Your task to perform on an android device: change the clock display to digital Image 0: 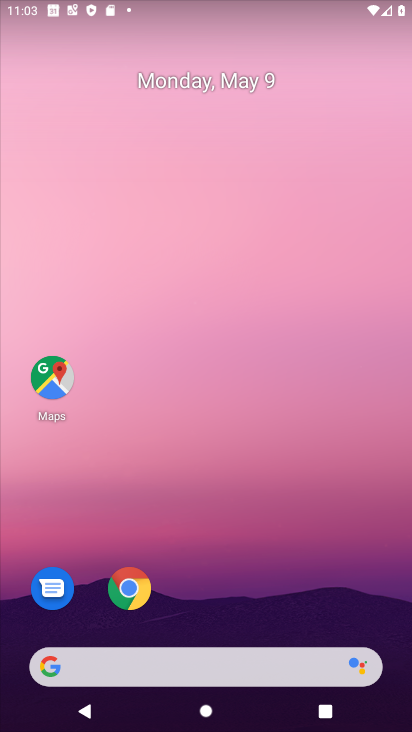
Step 0: drag from (163, 643) to (159, 0)
Your task to perform on an android device: change the clock display to digital Image 1: 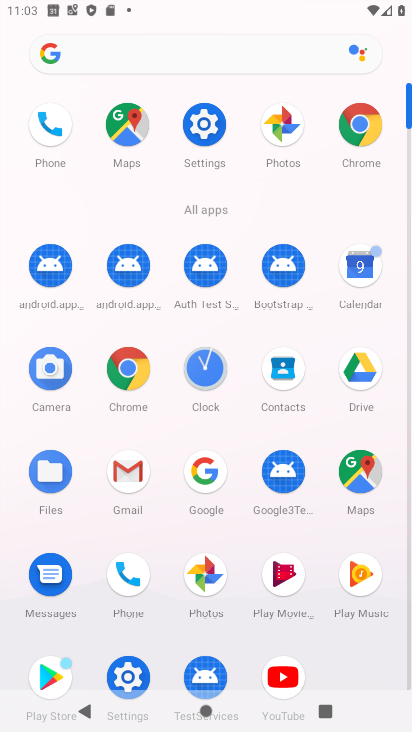
Step 1: click (114, 483)
Your task to perform on an android device: change the clock display to digital Image 2: 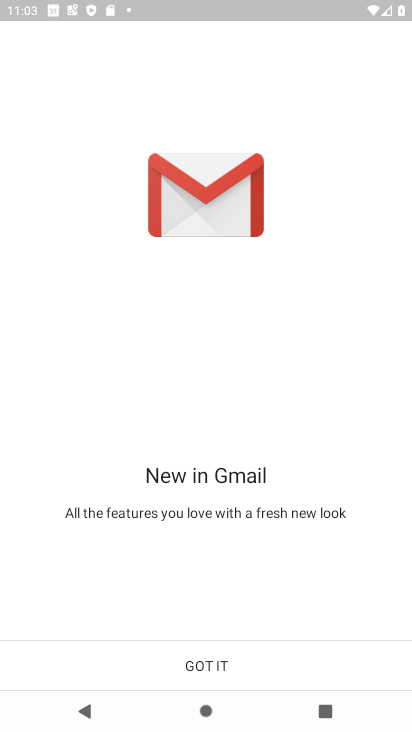
Step 2: press home button
Your task to perform on an android device: change the clock display to digital Image 3: 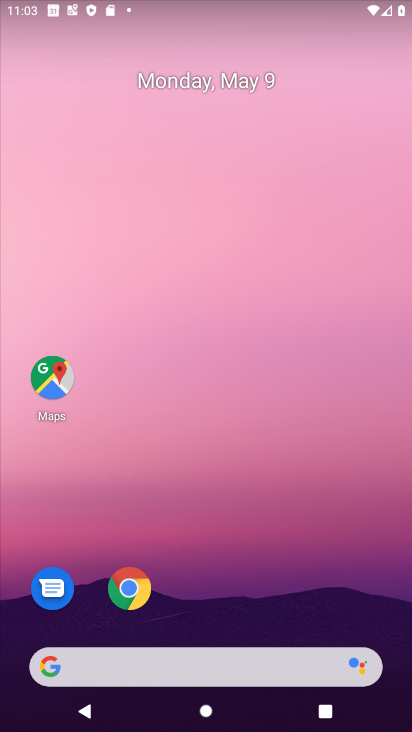
Step 3: drag from (208, 636) to (197, 34)
Your task to perform on an android device: change the clock display to digital Image 4: 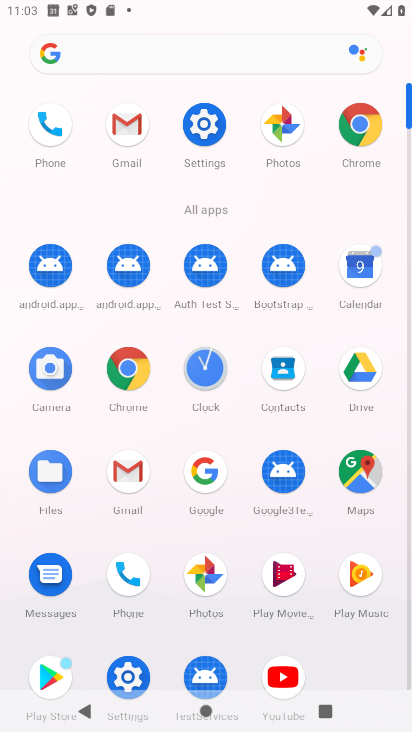
Step 4: click (209, 383)
Your task to perform on an android device: change the clock display to digital Image 5: 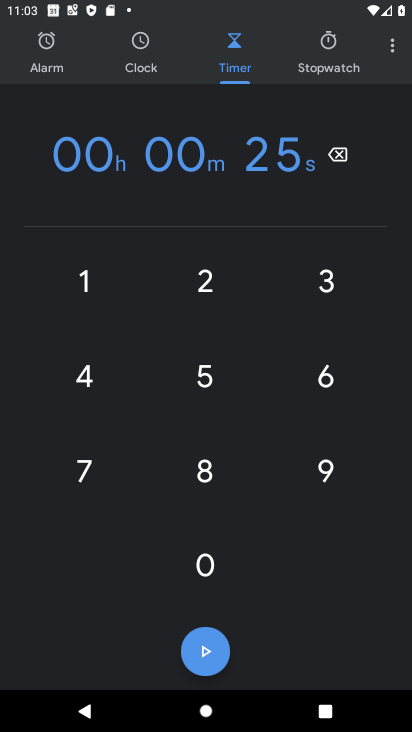
Step 5: click (388, 36)
Your task to perform on an android device: change the clock display to digital Image 6: 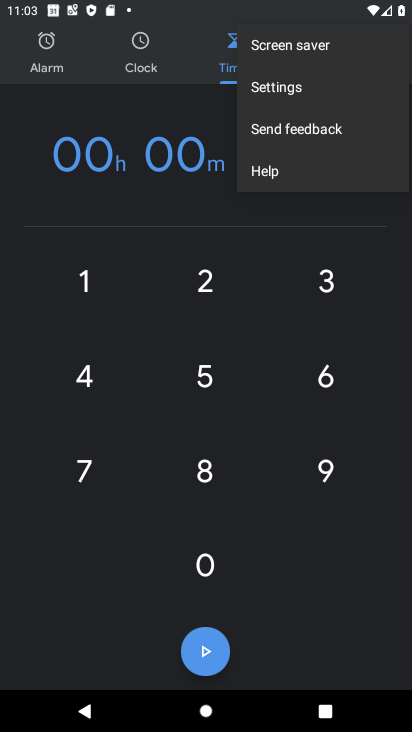
Step 6: click (284, 90)
Your task to perform on an android device: change the clock display to digital Image 7: 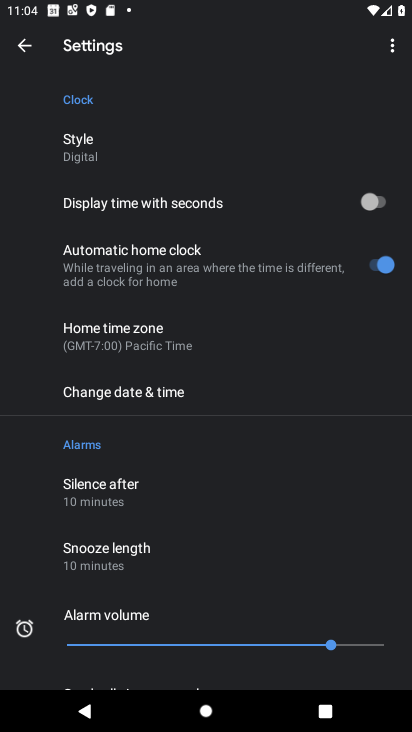
Step 7: click (290, 81)
Your task to perform on an android device: change the clock display to digital Image 8: 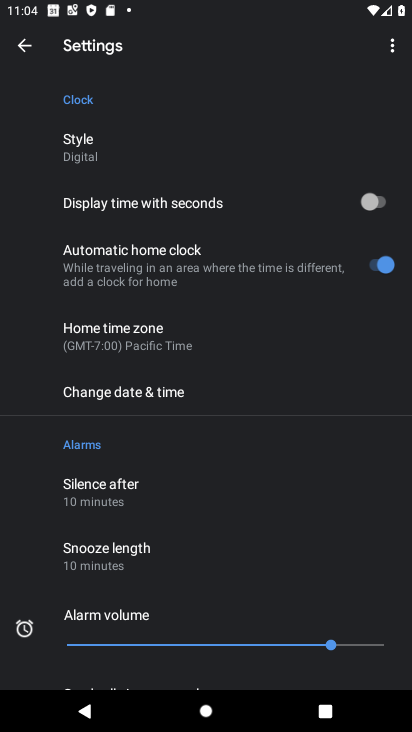
Step 8: click (110, 154)
Your task to perform on an android device: change the clock display to digital Image 9: 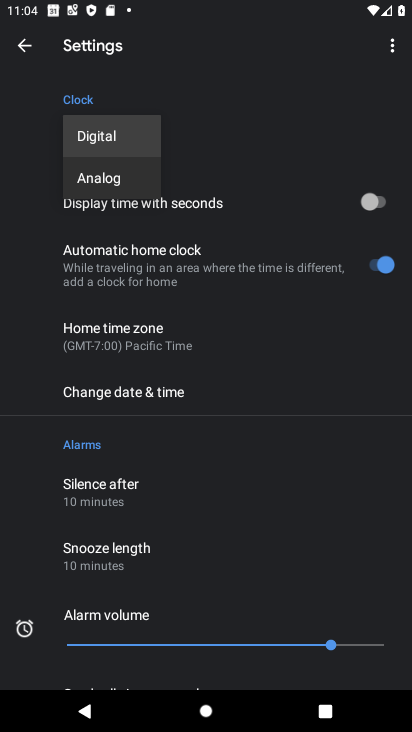
Step 9: click (114, 134)
Your task to perform on an android device: change the clock display to digital Image 10: 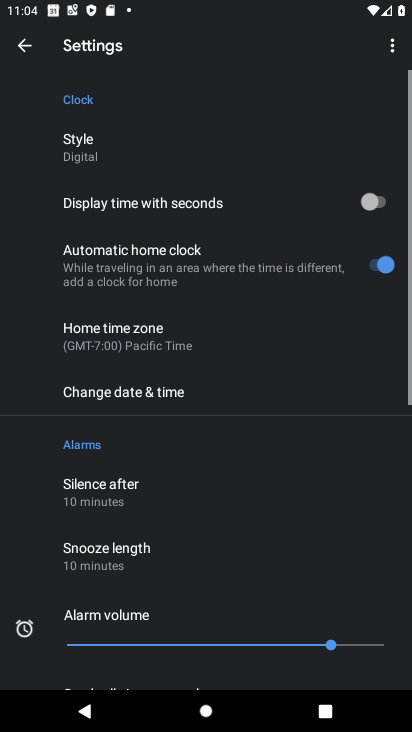
Step 10: task complete